Your task to perform on an android device: toggle priority inbox in the gmail app Image 0: 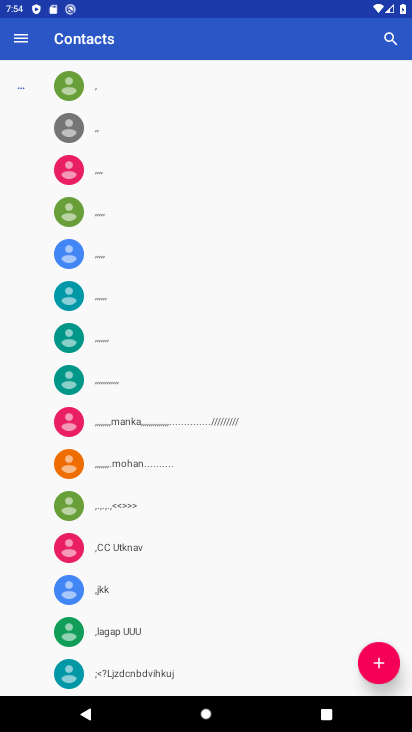
Step 0: press back button
Your task to perform on an android device: toggle priority inbox in the gmail app Image 1: 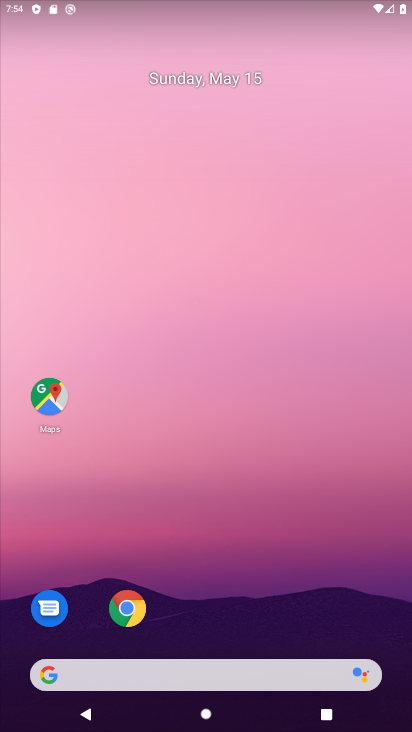
Step 1: press back button
Your task to perform on an android device: toggle priority inbox in the gmail app Image 2: 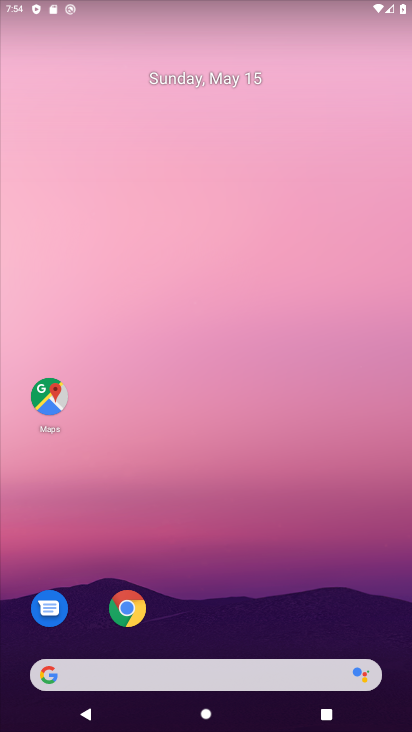
Step 2: click (270, 352)
Your task to perform on an android device: toggle priority inbox in the gmail app Image 3: 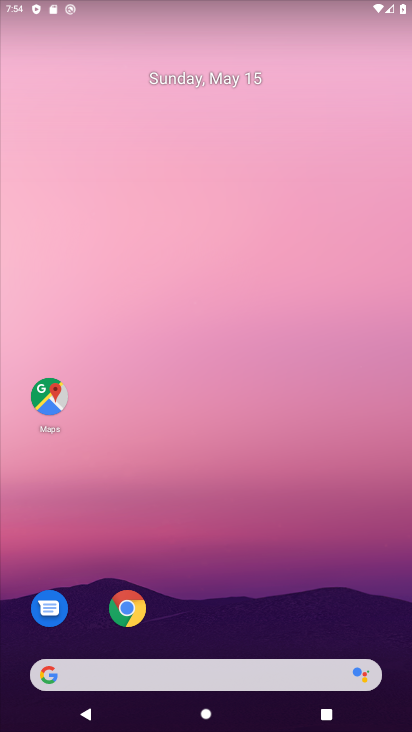
Step 3: press home button
Your task to perform on an android device: toggle priority inbox in the gmail app Image 4: 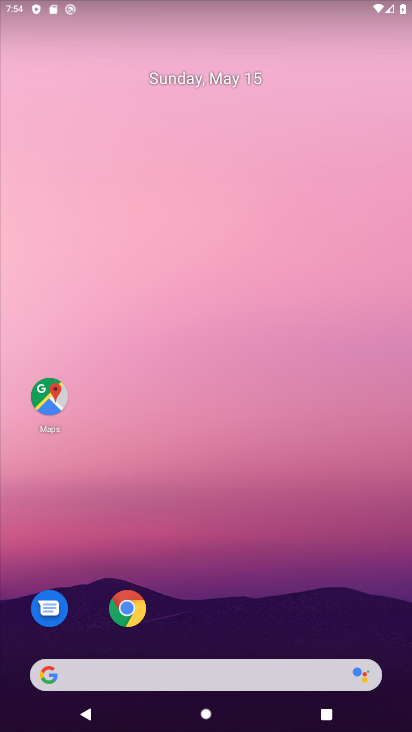
Step 4: drag from (381, 535) to (114, 39)
Your task to perform on an android device: toggle priority inbox in the gmail app Image 5: 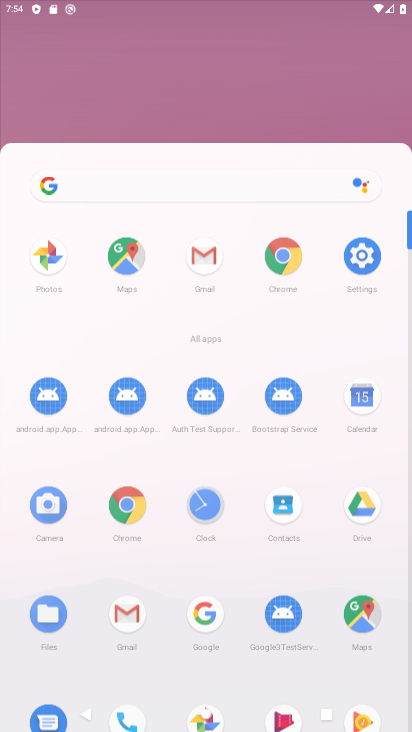
Step 5: click (165, 21)
Your task to perform on an android device: toggle priority inbox in the gmail app Image 6: 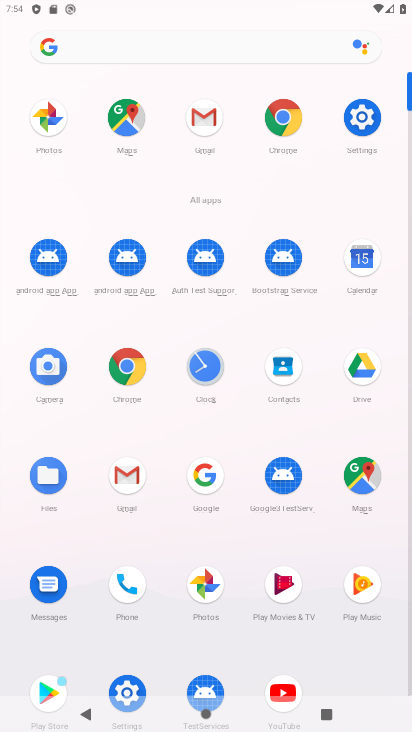
Step 6: drag from (227, 488) to (203, 14)
Your task to perform on an android device: toggle priority inbox in the gmail app Image 7: 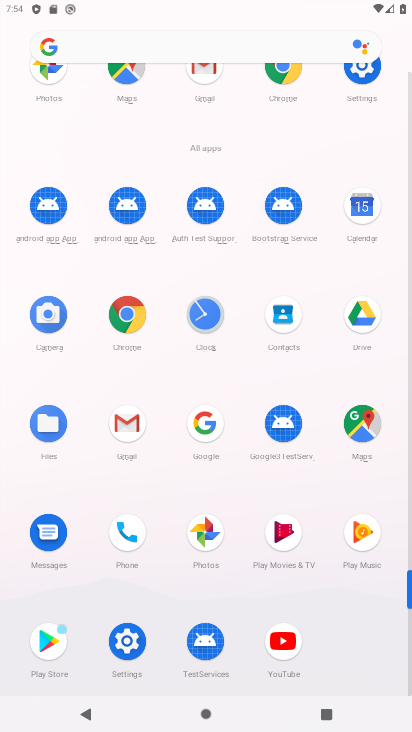
Step 7: click (129, 412)
Your task to perform on an android device: toggle priority inbox in the gmail app Image 8: 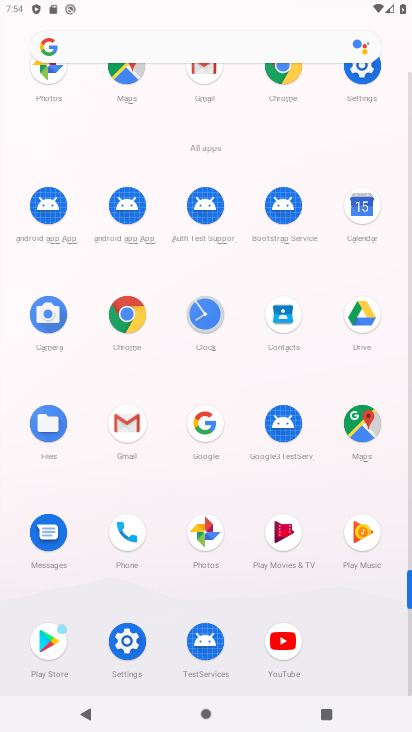
Step 8: click (125, 418)
Your task to perform on an android device: toggle priority inbox in the gmail app Image 9: 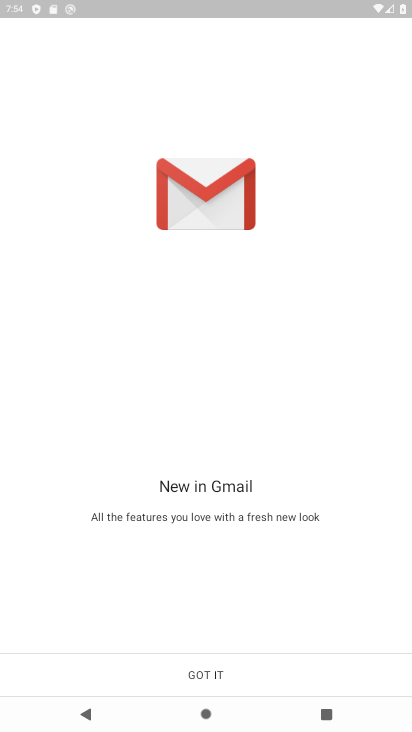
Step 9: click (113, 428)
Your task to perform on an android device: toggle priority inbox in the gmail app Image 10: 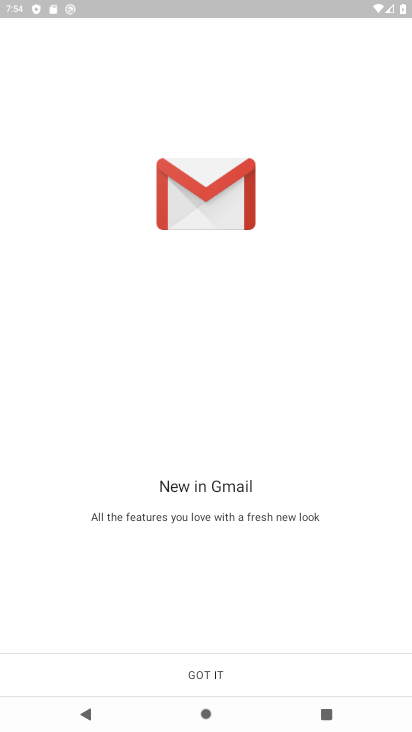
Step 10: click (205, 678)
Your task to perform on an android device: toggle priority inbox in the gmail app Image 11: 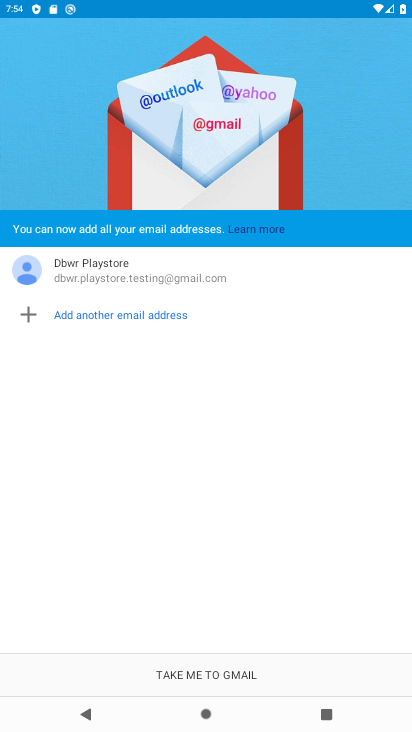
Step 11: click (209, 680)
Your task to perform on an android device: toggle priority inbox in the gmail app Image 12: 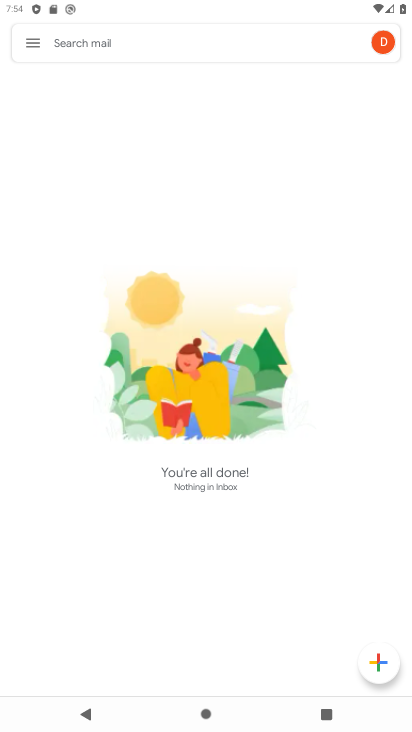
Step 12: click (29, 42)
Your task to perform on an android device: toggle priority inbox in the gmail app Image 13: 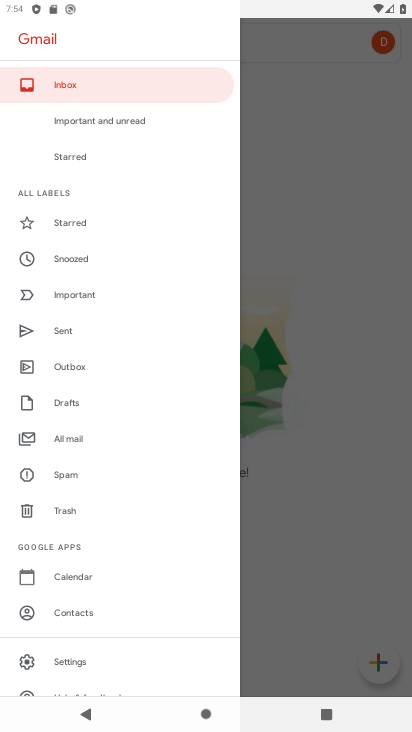
Step 13: click (68, 655)
Your task to perform on an android device: toggle priority inbox in the gmail app Image 14: 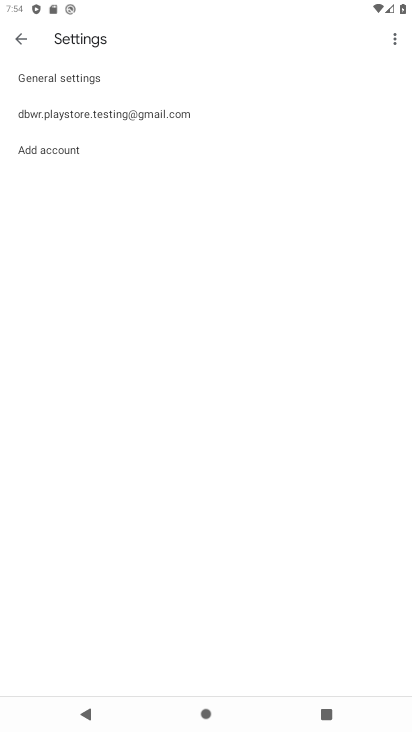
Step 14: click (69, 120)
Your task to perform on an android device: toggle priority inbox in the gmail app Image 15: 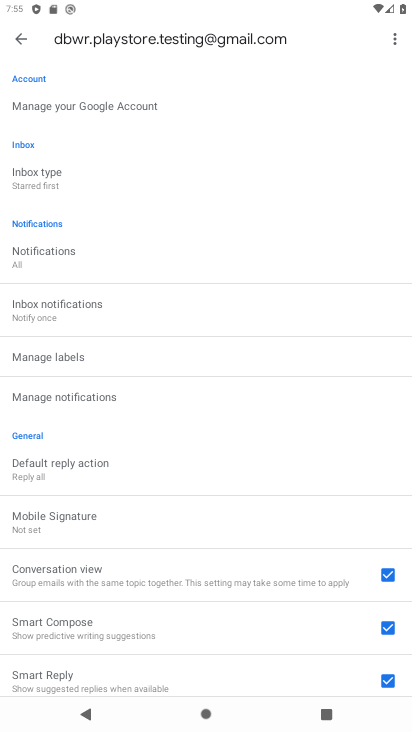
Step 15: click (31, 185)
Your task to perform on an android device: toggle priority inbox in the gmail app Image 16: 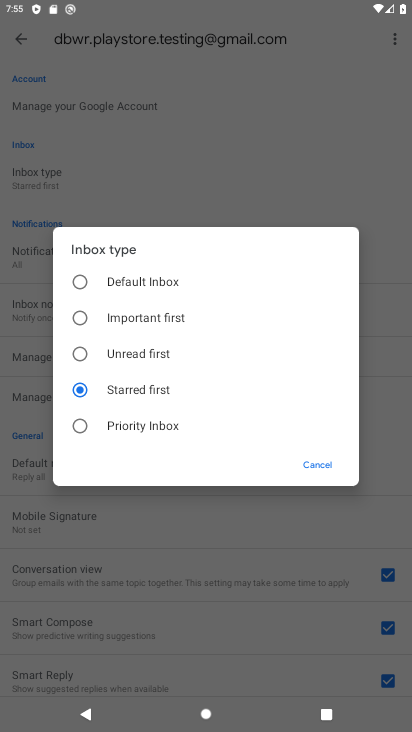
Step 16: click (78, 433)
Your task to perform on an android device: toggle priority inbox in the gmail app Image 17: 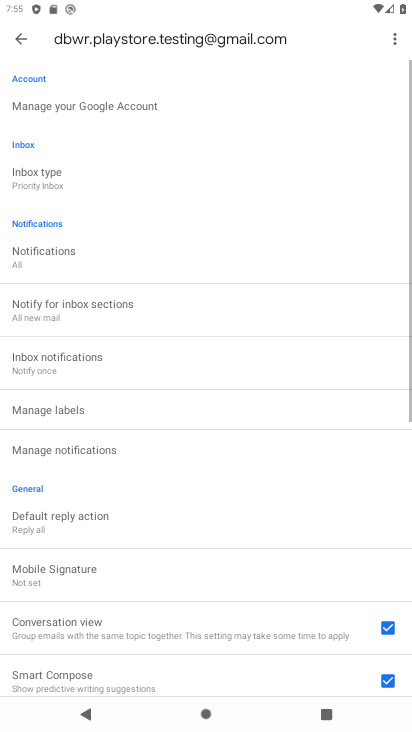
Step 17: task complete